Your task to perform on an android device: clear all cookies in the chrome app Image 0: 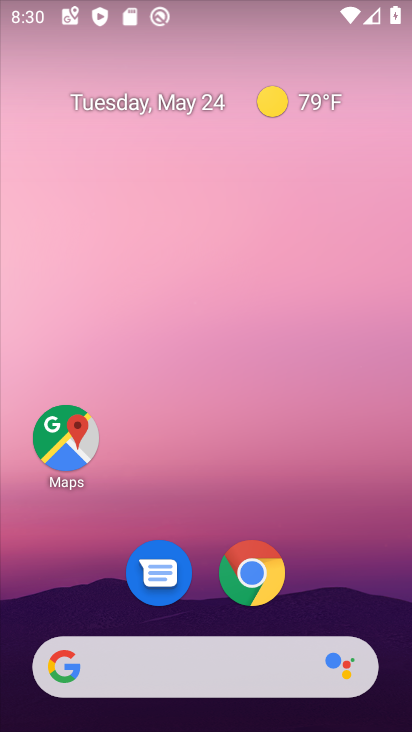
Step 0: drag from (329, 613) to (242, 262)
Your task to perform on an android device: clear all cookies in the chrome app Image 1: 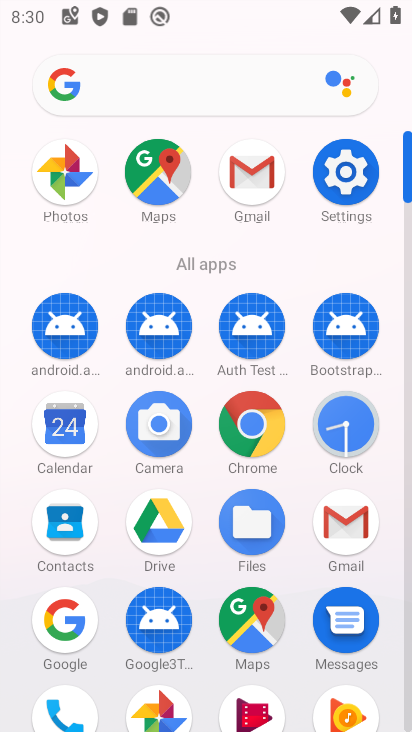
Step 1: click (271, 423)
Your task to perform on an android device: clear all cookies in the chrome app Image 2: 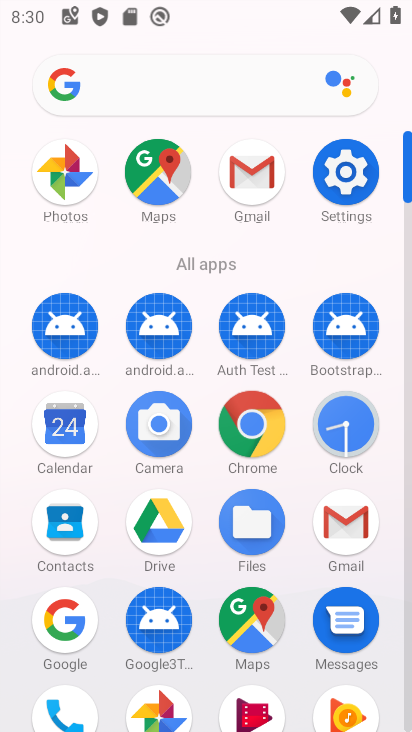
Step 2: click (246, 428)
Your task to perform on an android device: clear all cookies in the chrome app Image 3: 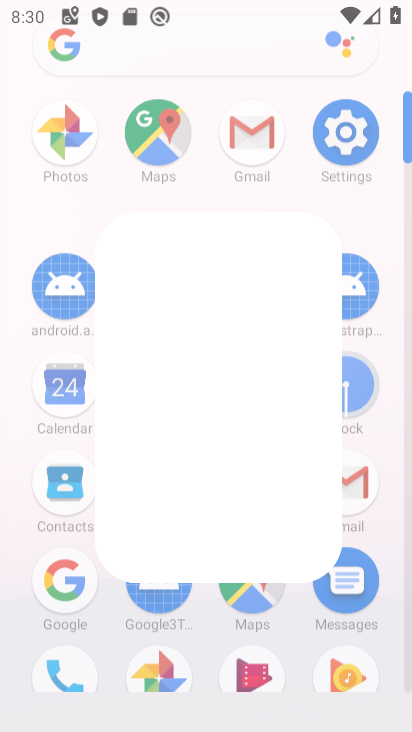
Step 3: click (250, 430)
Your task to perform on an android device: clear all cookies in the chrome app Image 4: 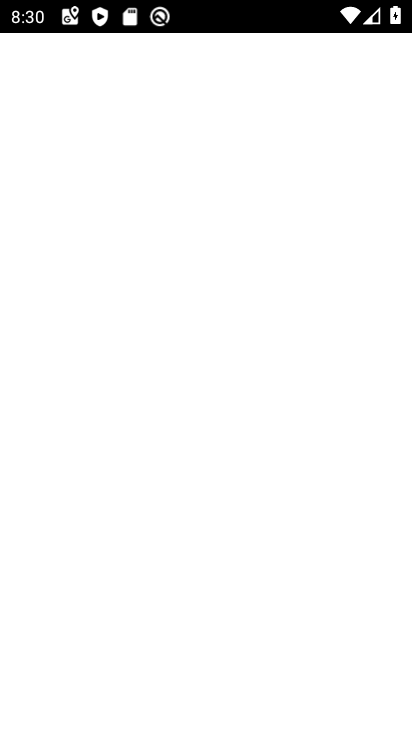
Step 4: click (259, 423)
Your task to perform on an android device: clear all cookies in the chrome app Image 5: 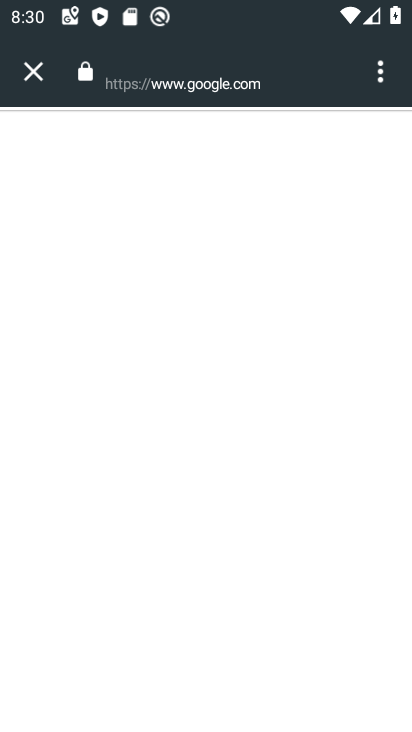
Step 5: click (34, 74)
Your task to perform on an android device: clear all cookies in the chrome app Image 6: 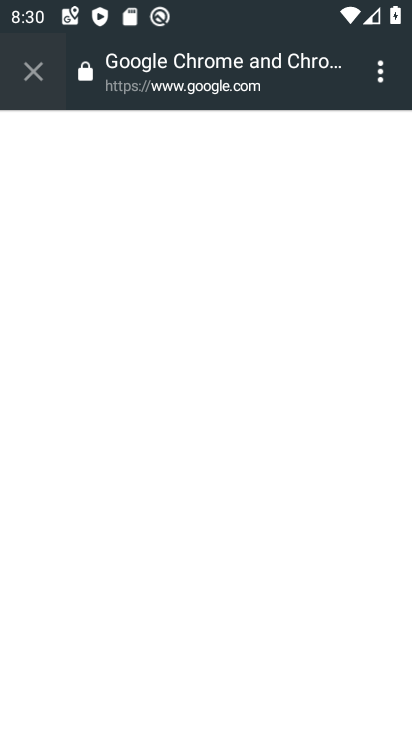
Step 6: click (34, 74)
Your task to perform on an android device: clear all cookies in the chrome app Image 7: 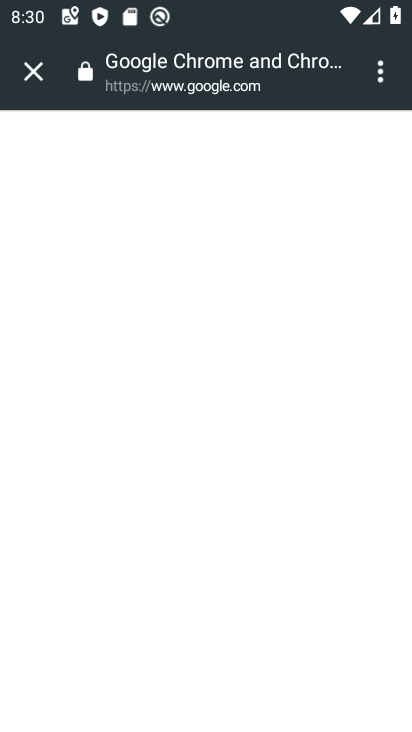
Step 7: click (34, 74)
Your task to perform on an android device: clear all cookies in the chrome app Image 8: 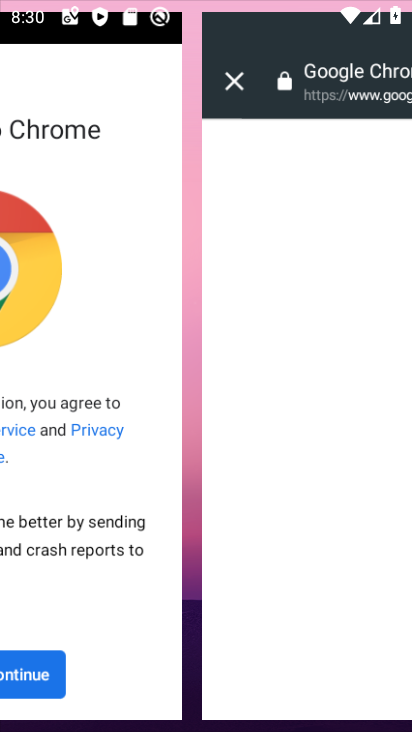
Step 8: click (34, 74)
Your task to perform on an android device: clear all cookies in the chrome app Image 9: 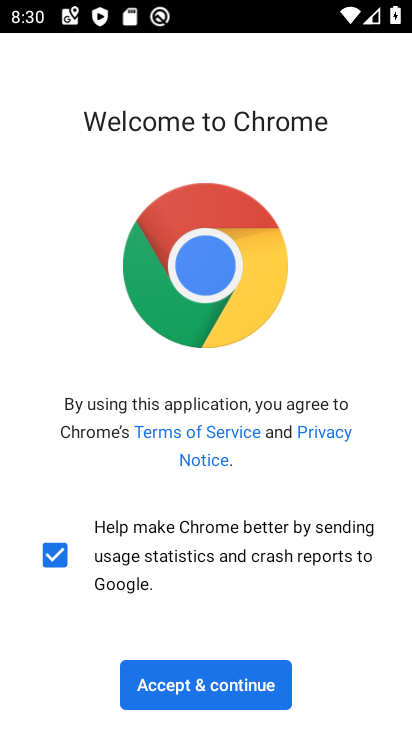
Step 9: click (190, 677)
Your task to perform on an android device: clear all cookies in the chrome app Image 10: 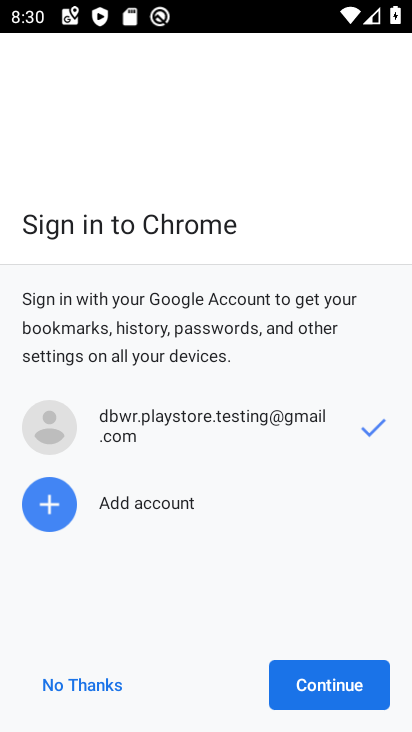
Step 10: click (190, 677)
Your task to perform on an android device: clear all cookies in the chrome app Image 11: 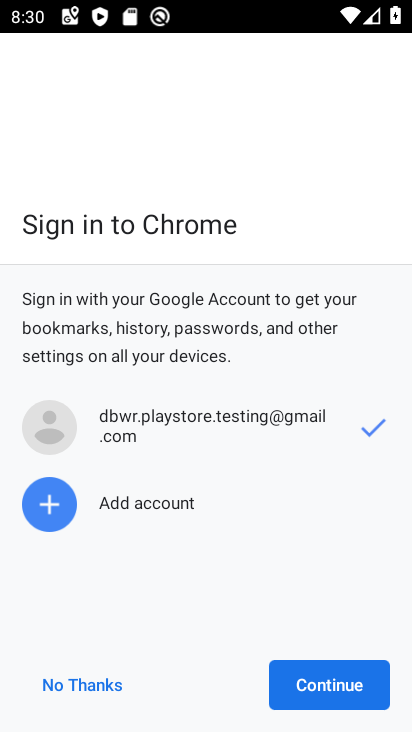
Step 11: click (197, 676)
Your task to perform on an android device: clear all cookies in the chrome app Image 12: 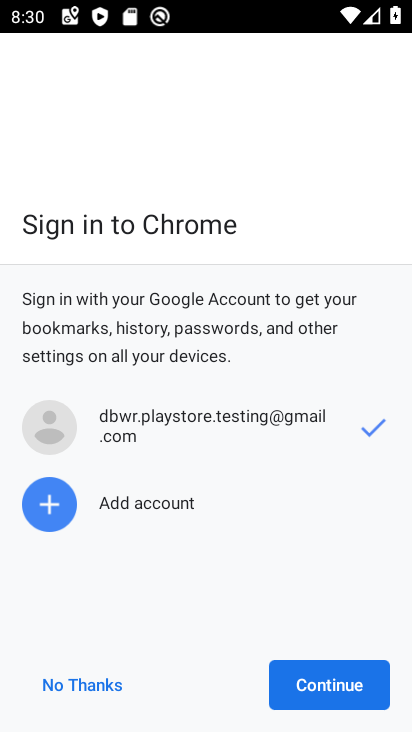
Step 12: click (198, 675)
Your task to perform on an android device: clear all cookies in the chrome app Image 13: 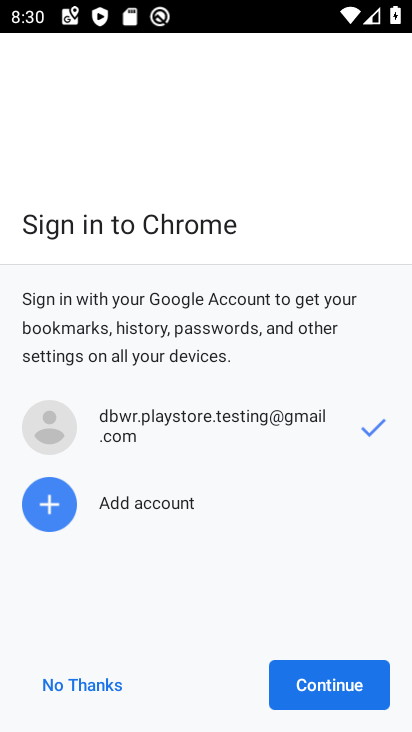
Step 13: click (338, 683)
Your task to perform on an android device: clear all cookies in the chrome app Image 14: 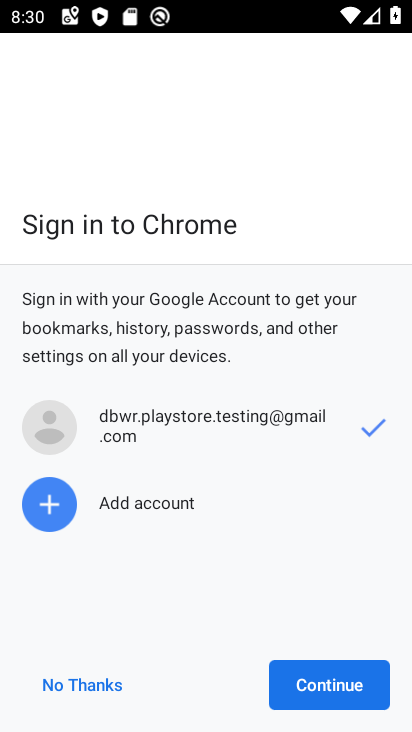
Step 14: click (338, 683)
Your task to perform on an android device: clear all cookies in the chrome app Image 15: 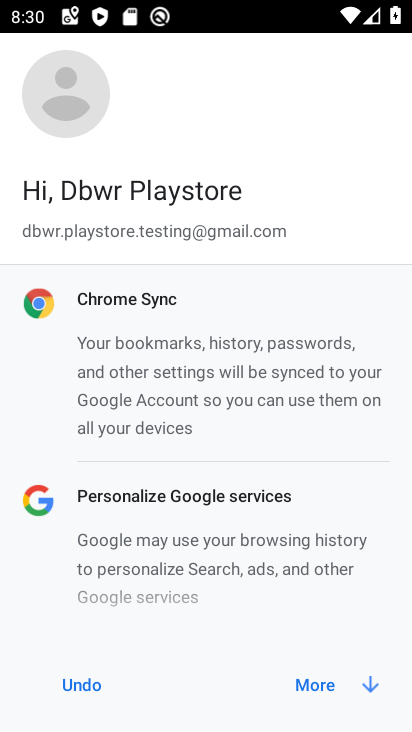
Step 15: click (339, 683)
Your task to perform on an android device: clear all cookies in the chrome app Image 16: 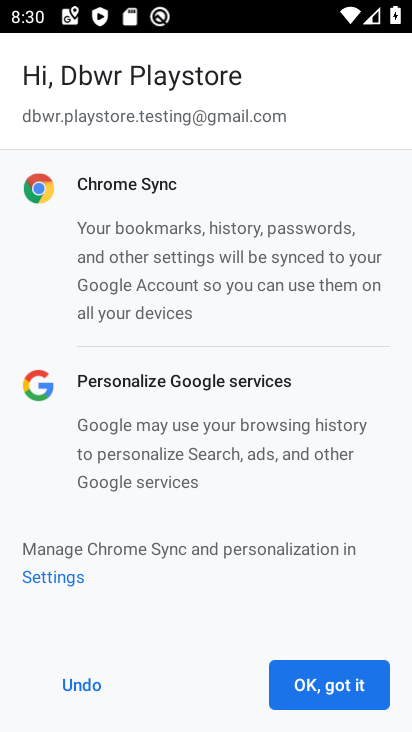
Step 16: click (339, 683)
Your task to perform on an android device: clear all cookies in the chrome app Image 17: 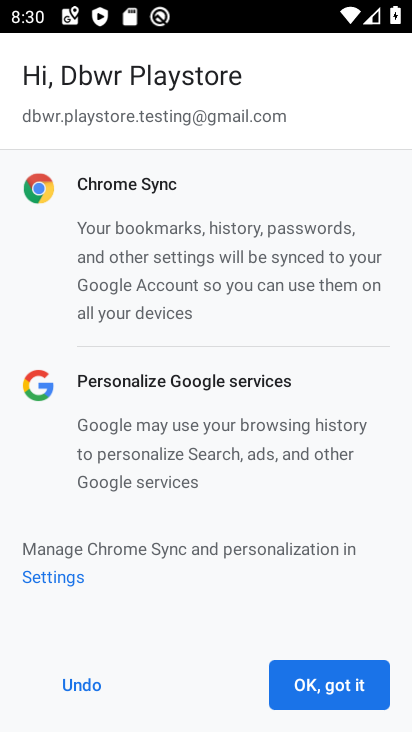
Step 17: click (341, 681)
Your task to perform on an android device: clear all cookies in the chrome app Image 18: 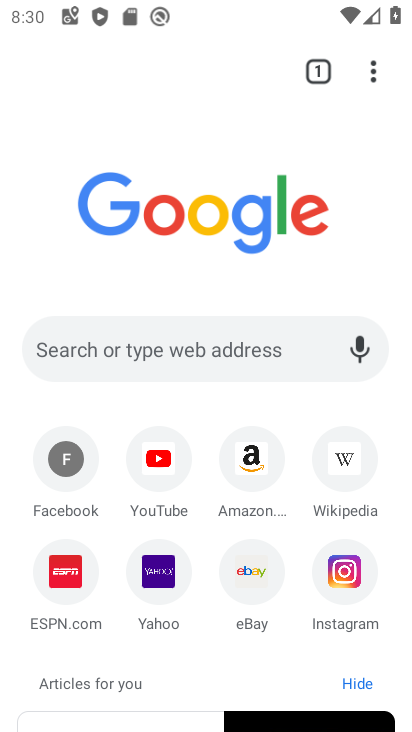
Step 18: drag from (368, 71) to (116, 618)
Your task to perform on an android device: clear all cookies in the chrome app Image 19: 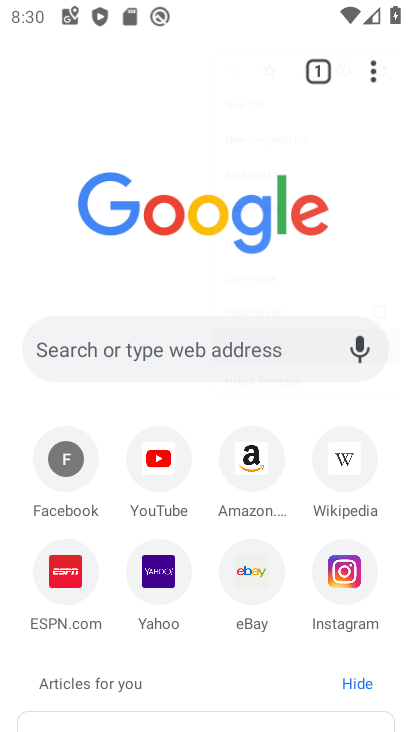
Step 19: click (116, 617)
Your task to perform on an android device: clear all cookies in the chrome app Image 20: 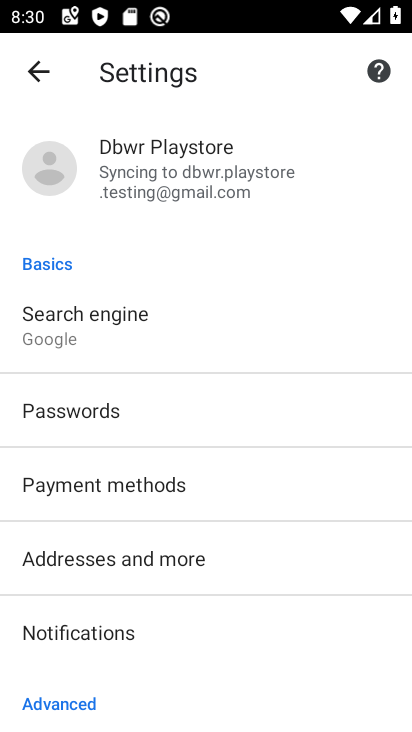
Step 20: drag from (165, 627) to (130, 225)
Your task to perform on an android device: clear all cookies in the chrome app Image 21: 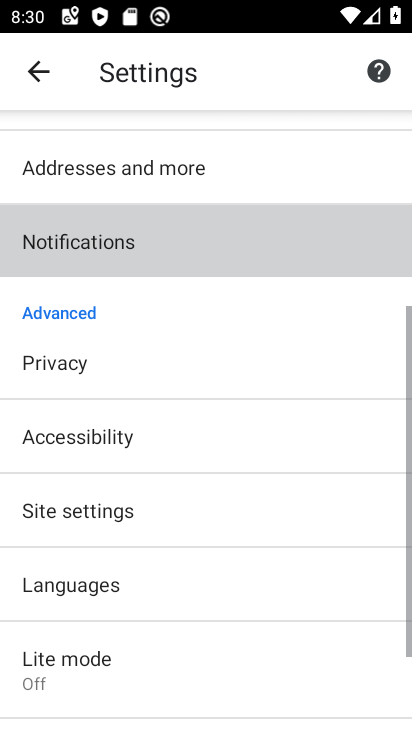
Step 21: drag from (85, 506) to (86, 87)
Your task to perform on an android device: clear all cookies in the chrome app Image 22: 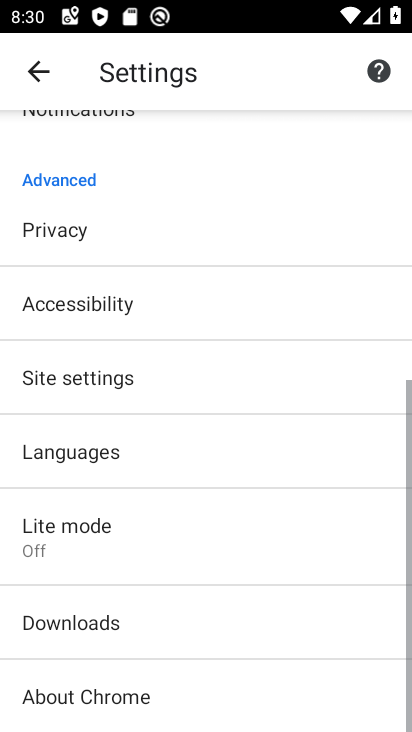
Step 22: drag from (148, 429) to (149, 125)
Your task to perform on an android device: clear all cookies in the chrome app Image 23: 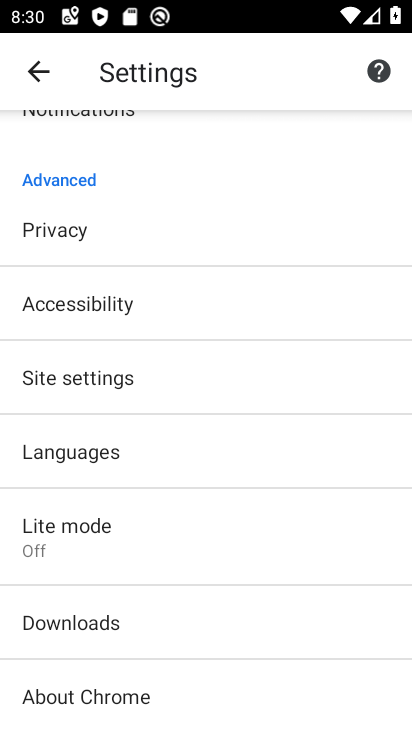
Step 23: click (69, 370)
Your task to perform on an android device: clear all cookies in the chrome app Image 24: 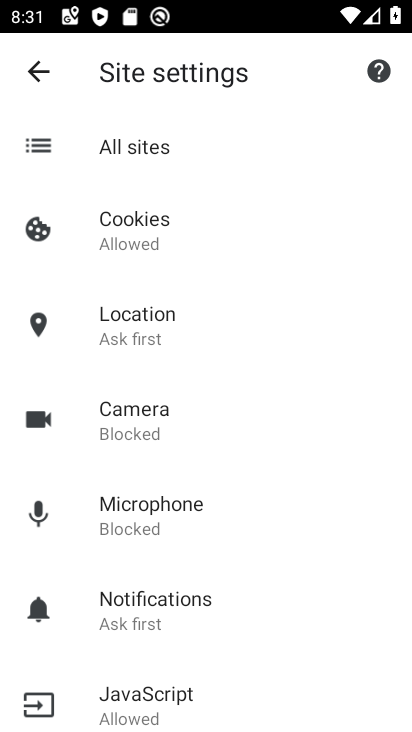
Step 24: click (144, 242)
Your task to perform on an android device: clear all cookies in the chrome app Image 25: 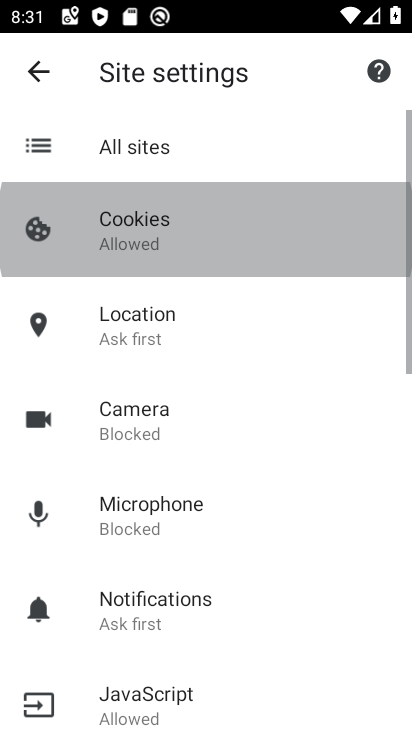
Step 25: click (144, 242)
Your task to perform on an android device: clear all cookies in the chrome app Image 26: 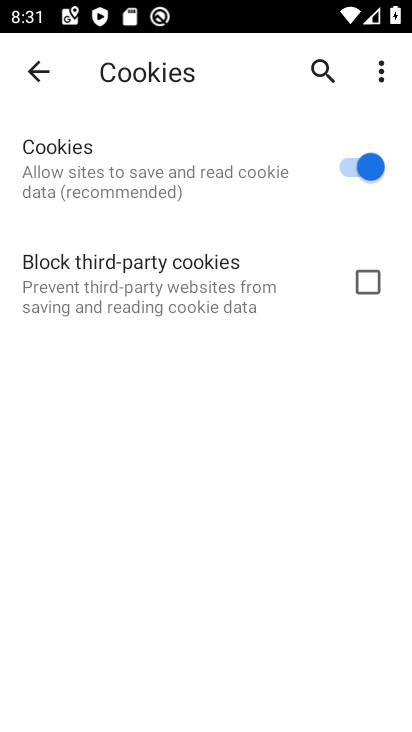
Step 26: task complete